Your task to perform on an android device: Go to ESPN.com Image 0: 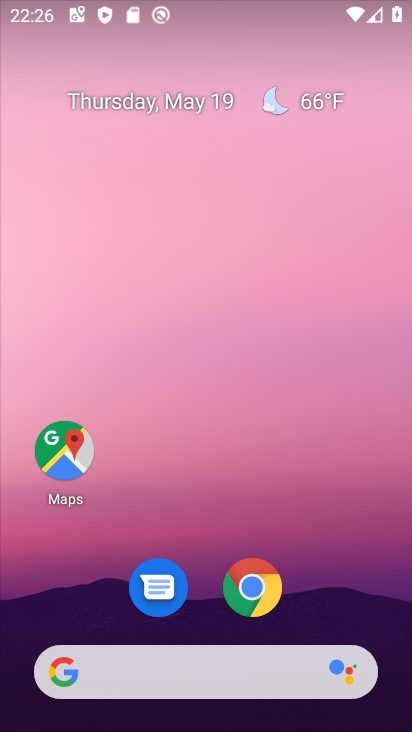
Step 0: drag from (247, 711) to (294, 162)
Your task to perform on an android device: Go to ESPN.com Image 1: 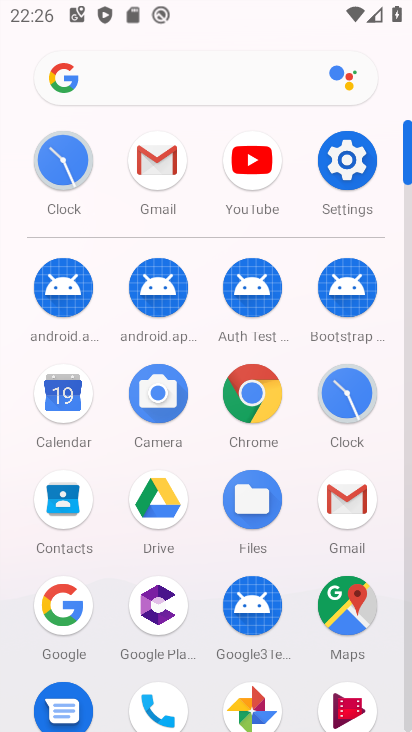
Step 1: click (259, 408)
Your task to perform on an android device: Go to ESPN.com Image 2: 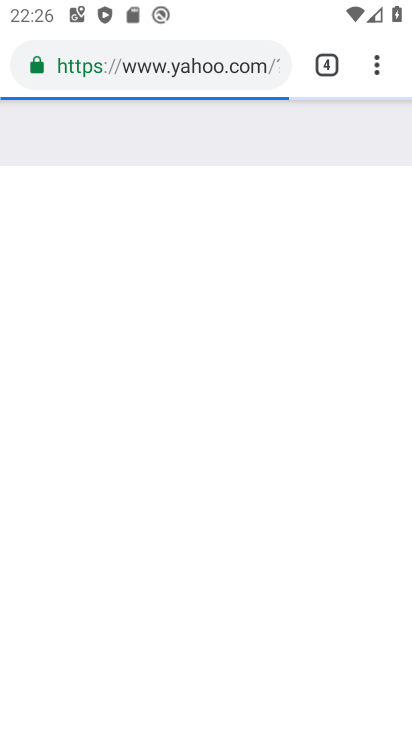
Step 2: click (322, 78)
Your task to perform on an android device: Go to ESPN.com Image 3: 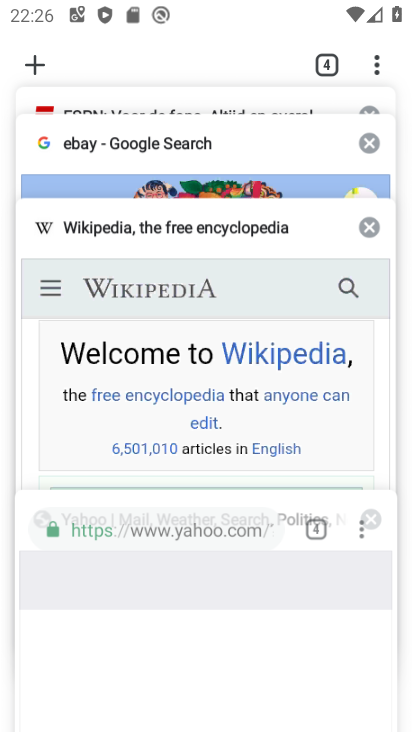
Step 3: click (40, 65)
Your task to perform on an android device: Go to ESPN.com Image 4: 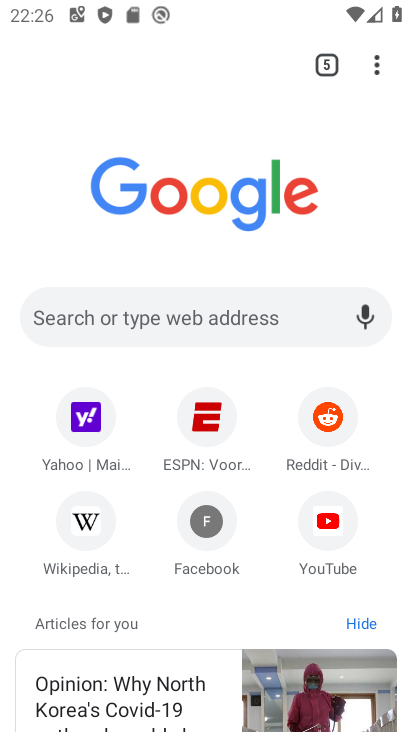
Step 4: click (194, 424)
Your task to perform on an android device: Go to ESPN.com Image 5: 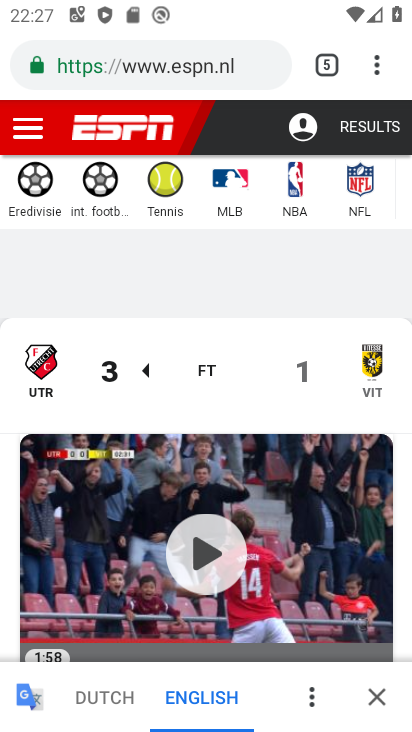
Step 5: task complete